Your task to perform on an android device: Clear the cart on costco. Search for razer thresher on costco, select the first entry, add it to the cart, then select checkout. Image 0: 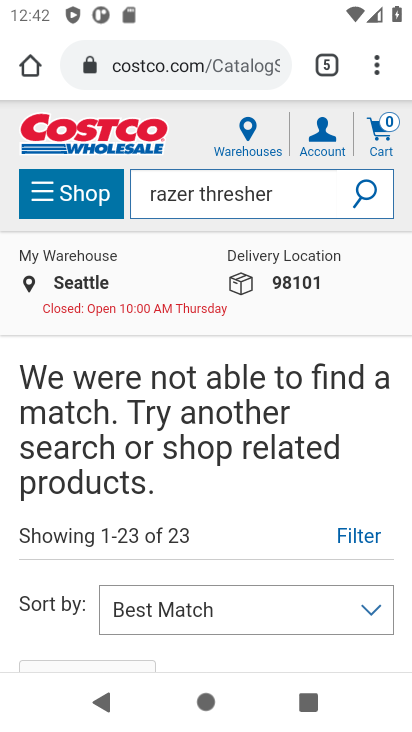
Step 0: task impossible